Your task to perform on an android device: remove spam from my inbox in the gmail app Image 0: 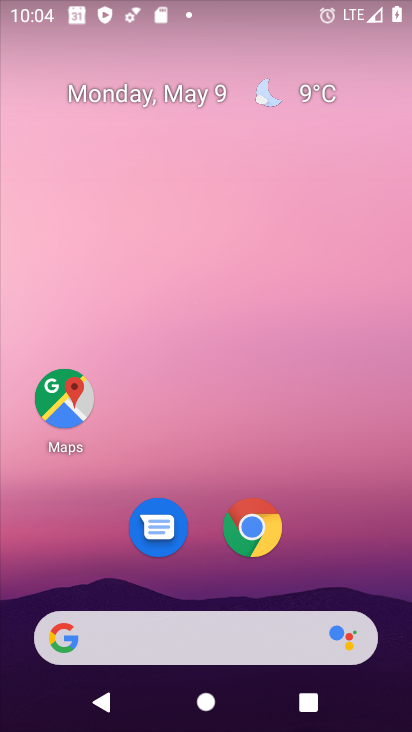
Step 0: drag from (384, 662) to (344, 99)
Your task to perform on an android device: remove spam from my inbox in the gmail app Image 1: 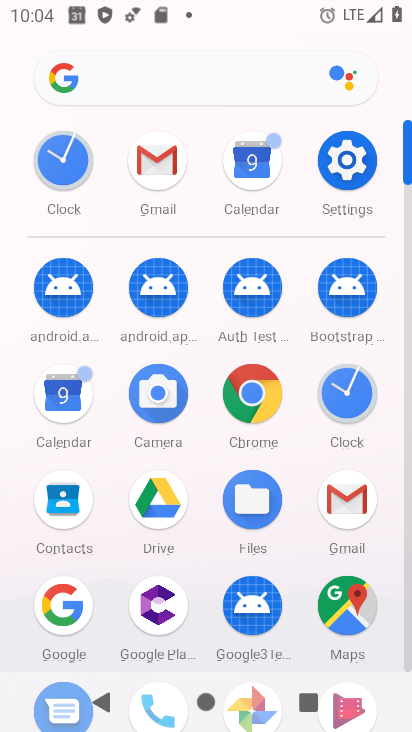
Step 1: click (405, 660)
Your task to perform on an android device: remove spam from my inbox in the gmail app Image 2: 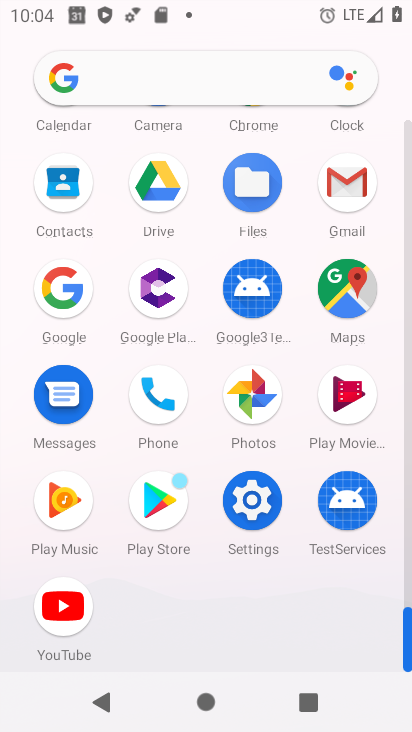
Step 2: click (342, 183)
Your task to perform on an android device: remove spam from my inbox in the gmail app Image 3: 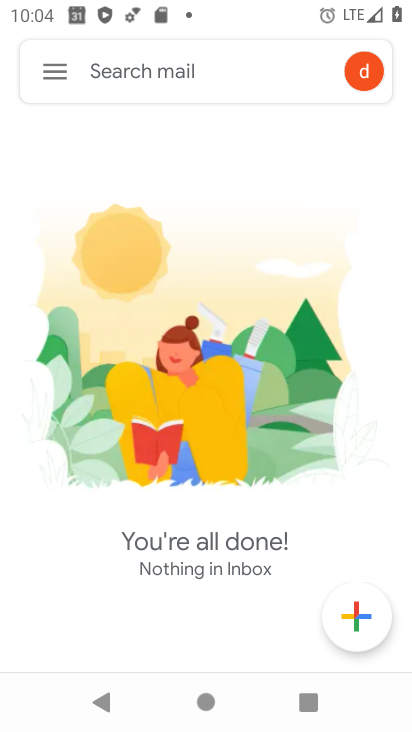
Step 3: click (54, 71)
Your task to perform on an android device: remove spam from my inbox in the gmail app Image 4: 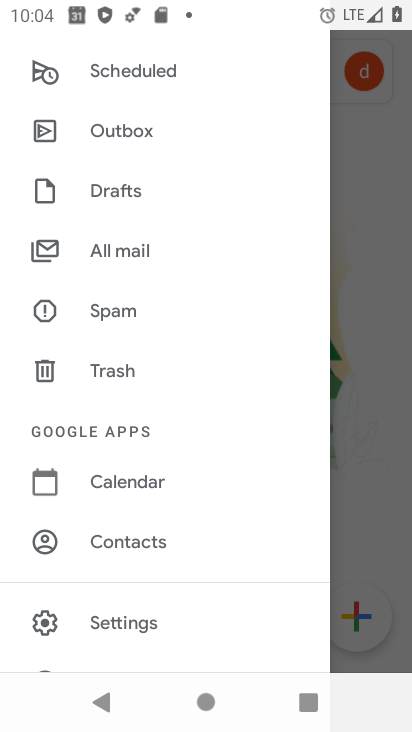
Step 4: click (112, 313)
Your task to perform on an android device: remove spam from my inbox in the gmail app Image 5: 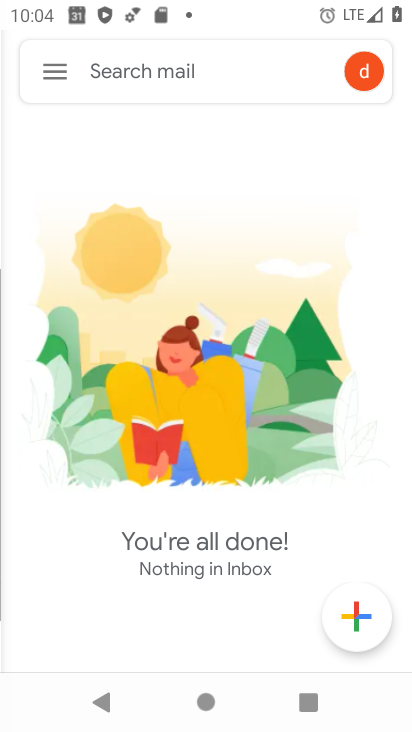
Step 5: click (112, 313)
Your task to perform on an android device: remove spam from my inbox in the gmail app Image 6: 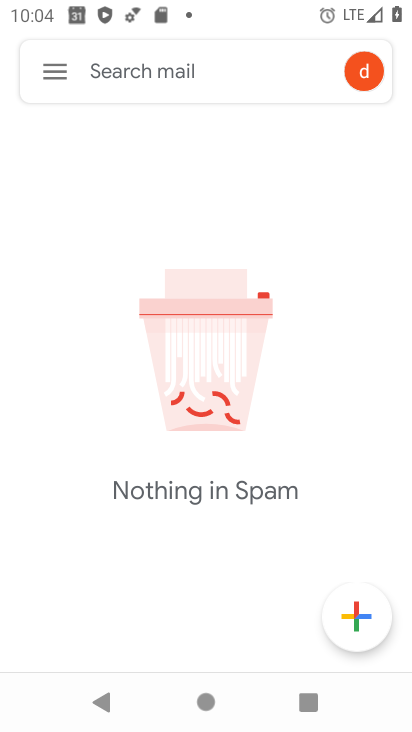
Step 6: click (112, 313)
Your task to perform on an android device: remove spam from my inbox in the gmail app Image 7: 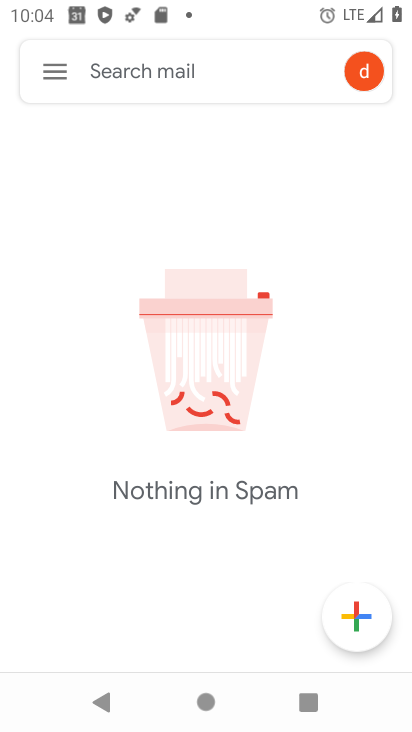
Step 7: task complete